Your task to perform on an android device: Go to CNN.com Image 0: 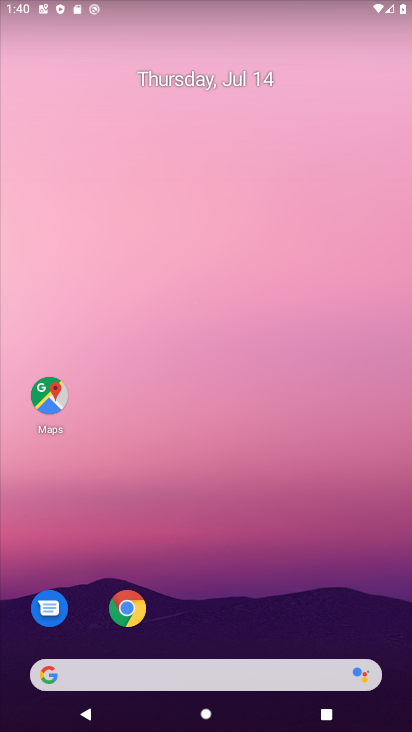
Step 0: click (127, 609)
Your task to perform on an android device: Go to CNN.com Image 1: 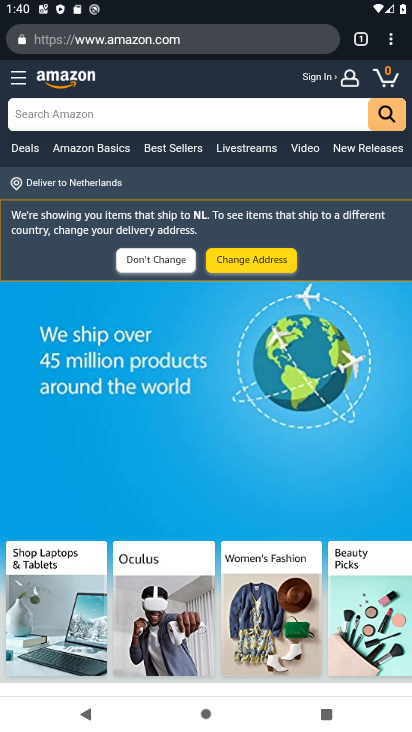
Step 1: click (198, 40)
Your task to perform on an android device: Go to CNN.com Image 2: 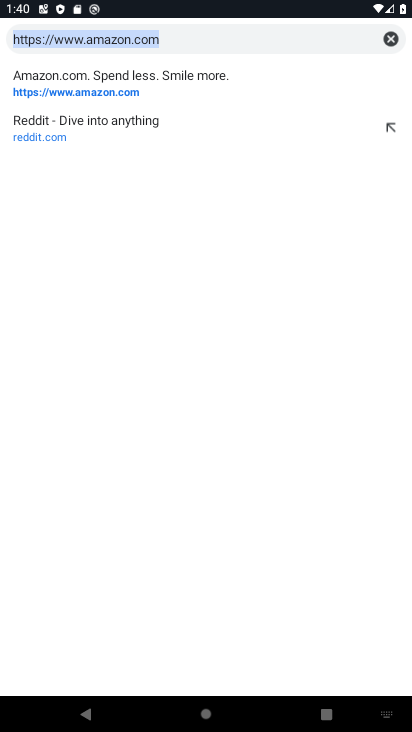
Step 2: click (198, 40)
Your task to perform on an android device: Go to CNN.com Image 3: 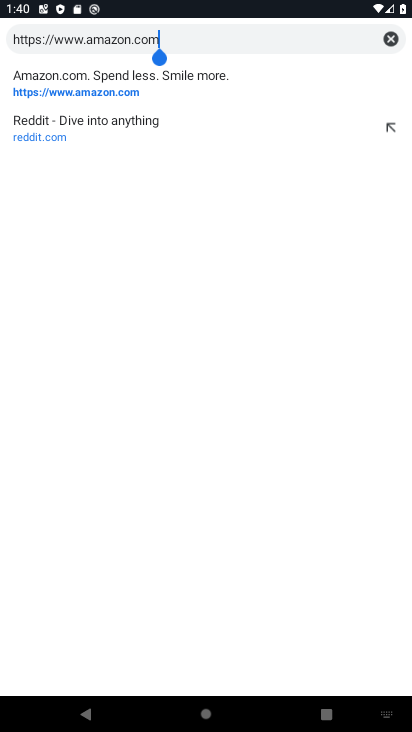
Step 3: click (386, 34)
Your task to perform on an android device: Go to CNN.com Image 4: 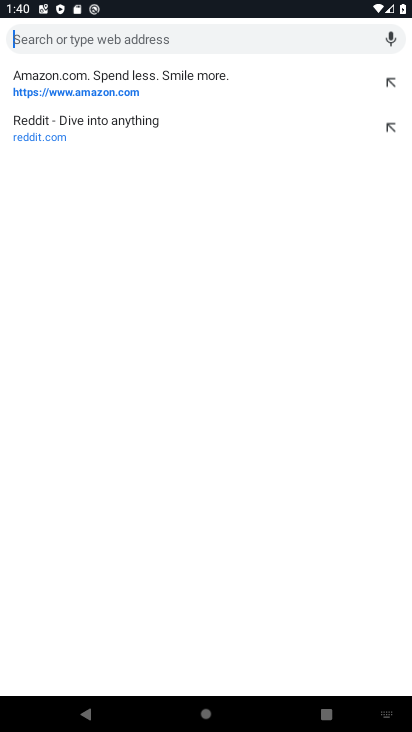
Step 4: type "CNN.com"
Your task to perform on an android device: Go to CNN.com Image 5: 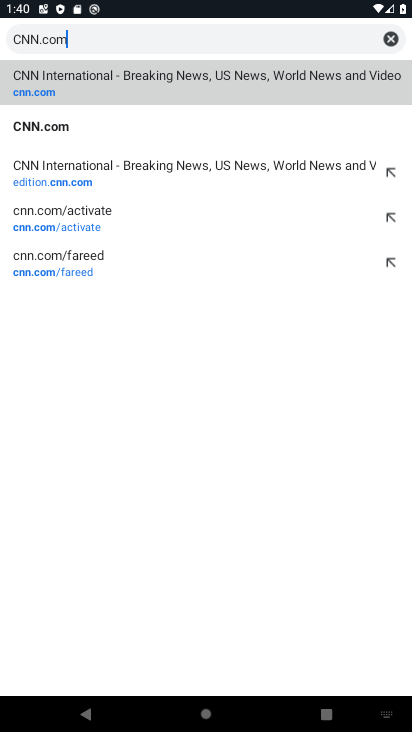
Step 5: click (57, 81)
Your task to perform on an android device: Go to CNN.com Image 6: 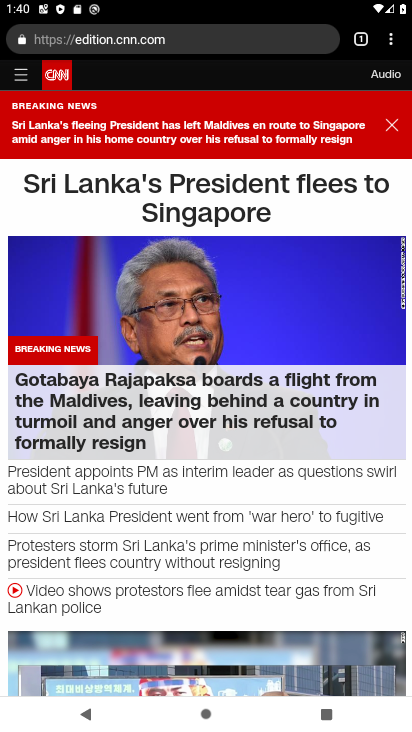
Step 6: drag from (238, 587) to (228, 189)
Your task to perform on an android device: Go to CNN.com Image 7: 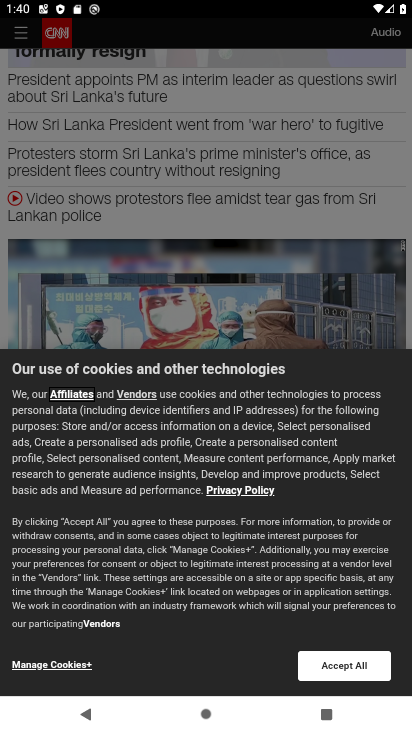
Step 7: click (356, 668)
Your task to perform on an android device: Go to CNN.com Image 8: 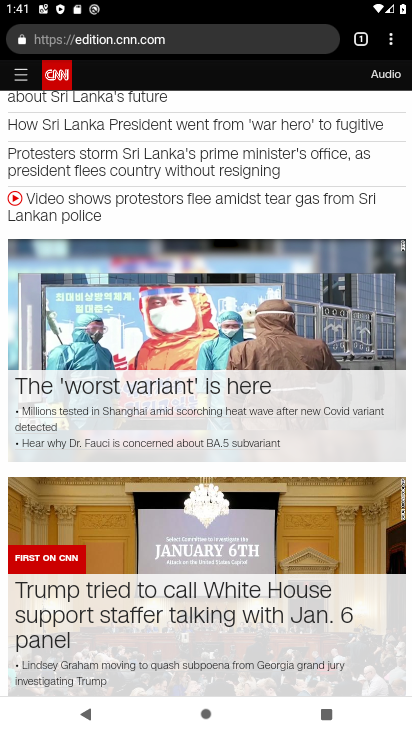
Step 8: task complete